Your task to perform on an android device: turn on bluetooth scan Image 0: 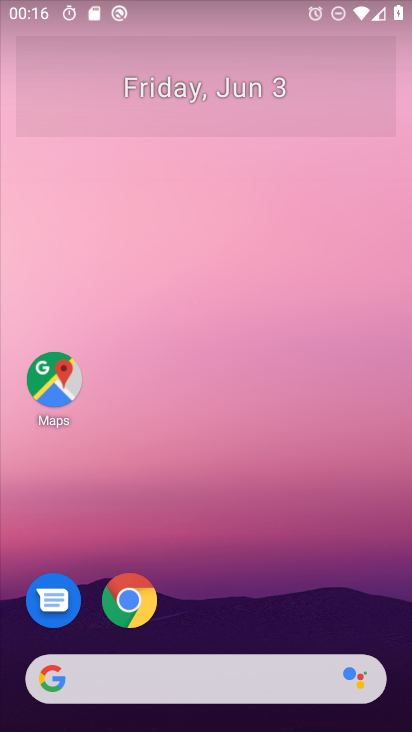
Step 0: drag from (200, 590) to (179, 86)
Your task to perform on an android device: turn on bluetooth scan Image 1: 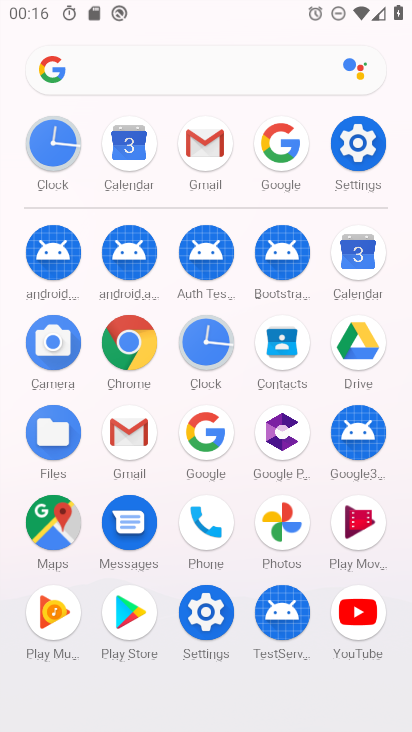
Step 1: click (350, 140)
Your task to perform on an android device: turn on bluetooth scan Image 2: 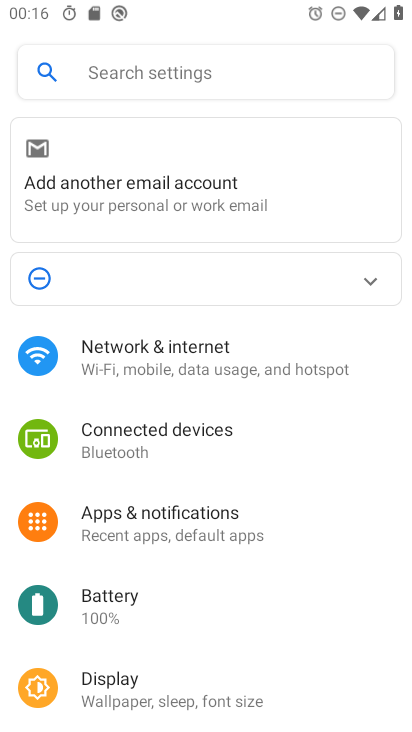
Step 2: drag from (175, 599) to (203, 73)
Your task to perform on an android device: turn on bluetooth scan Image 3: 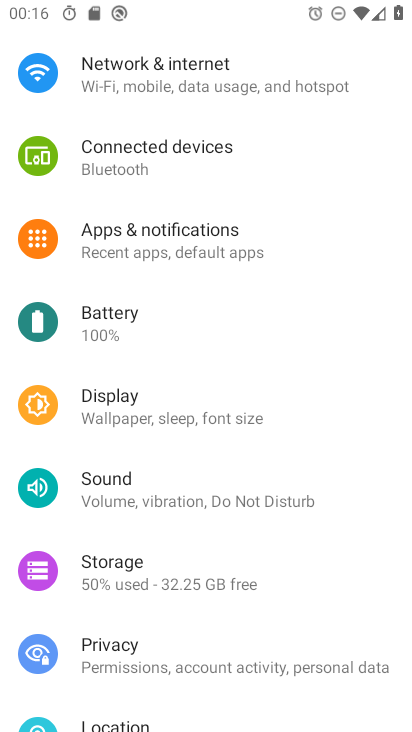
Step 3: drag from (175, 657) to (173, 205)
Your task to perform on an android device: turn on bluetooth scan Image 4: 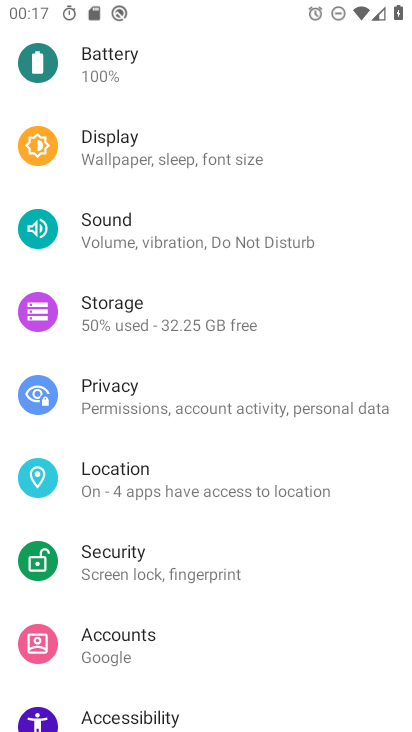
Step 4: drag from (186, 684) to (136, 195)
Your task to perform on an android device: turn on bluetooth scan Image 5: 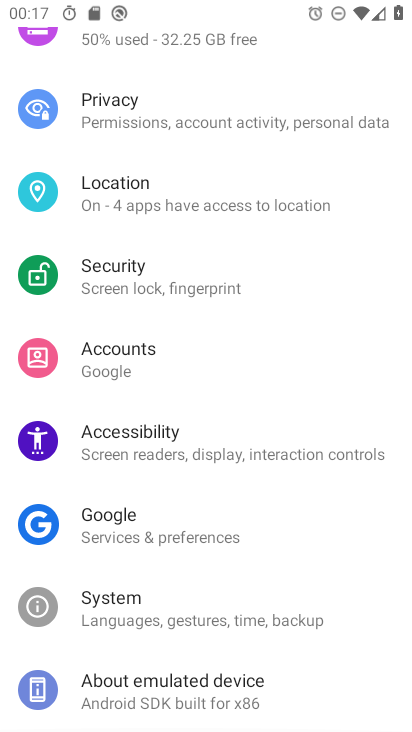
Step 5: drag from (200, 249) to (206, 339)
Your task to perform on an android device: turn on bluetooth scan Image 6: 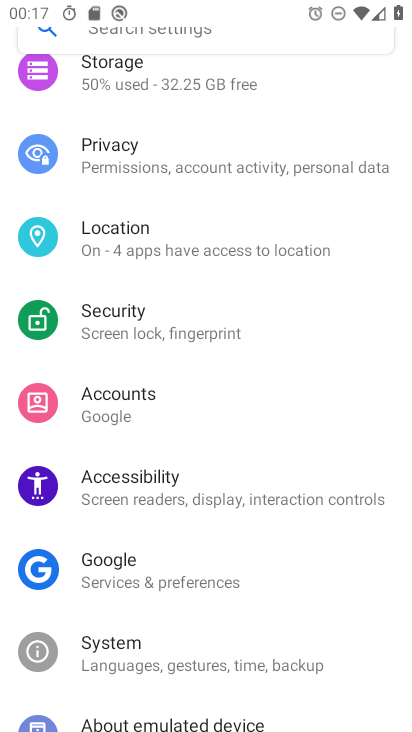
Step 6: click (147, 252)
Your task to perform on an android device: turn on bluetooth scan Image 7: 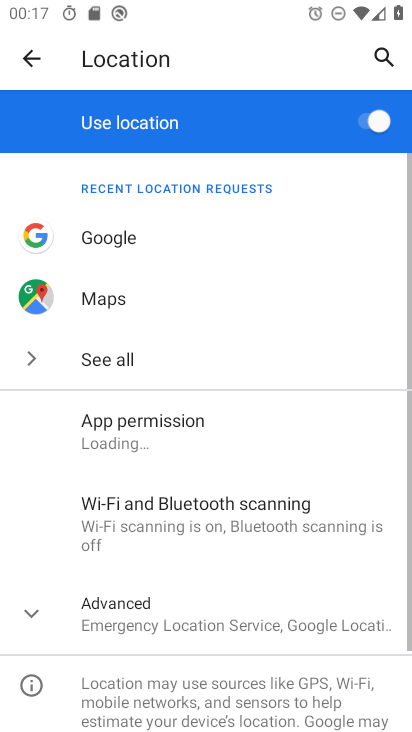
Step 7: click (187, 498)
Your task to perform on an android device: turn on bluetooth scan Image 8: 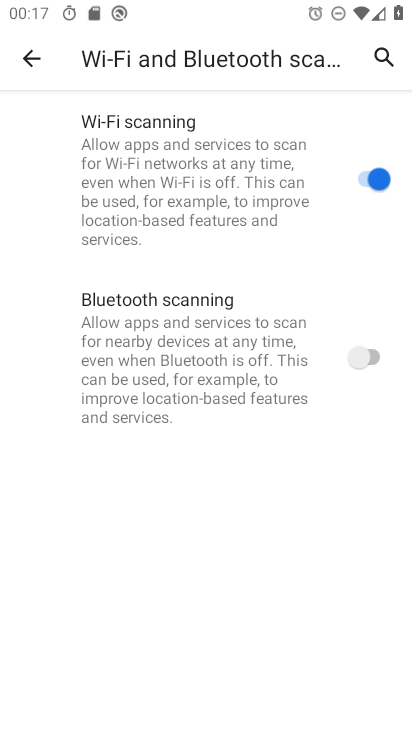
Step 8: click (371, 360)
Your task to perform on an android device: turn on bluetooth scan Image 9: 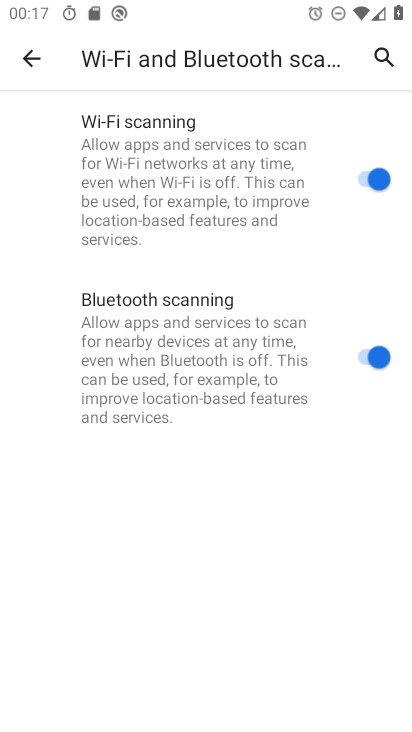
Step 9: task complete